Your task to perform on an android device: Go to network settings Image 0: 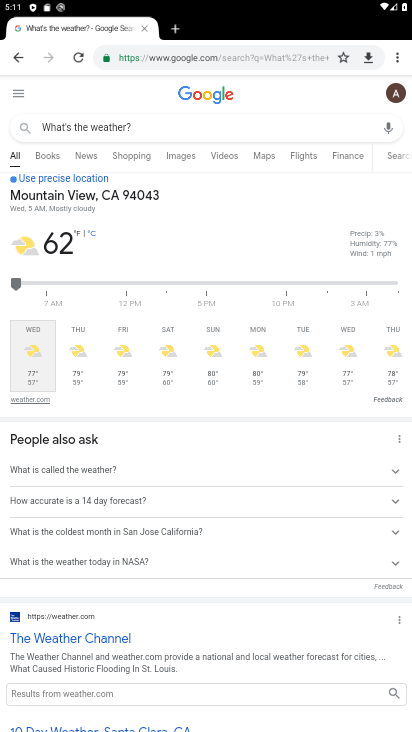
Step 0: task complete